Your task to perform on an android device: turn off location history Image 0: 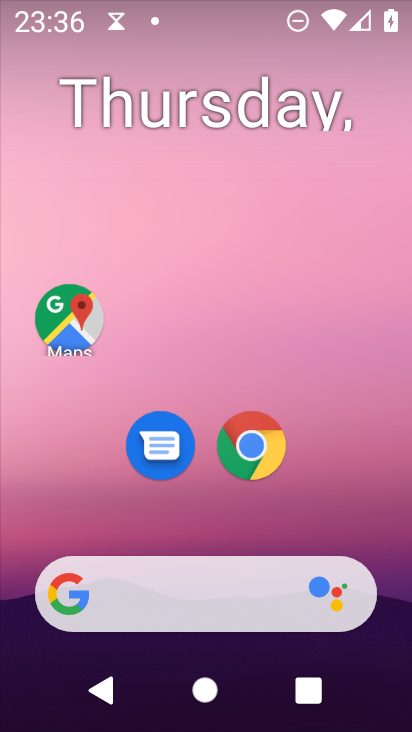
Step 0: drag from (236, 708) to (240, 25)
Your task to perform on an android device: turn off location history Image 1: 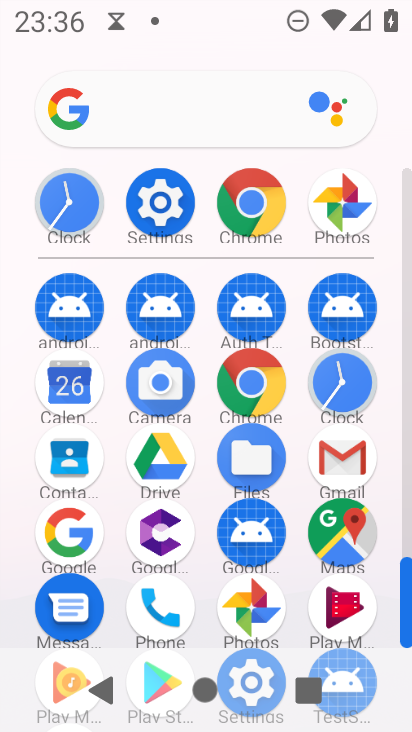
Step 1: click (157, 204)
Your task to perform on an android device: turn off location history Image 2: 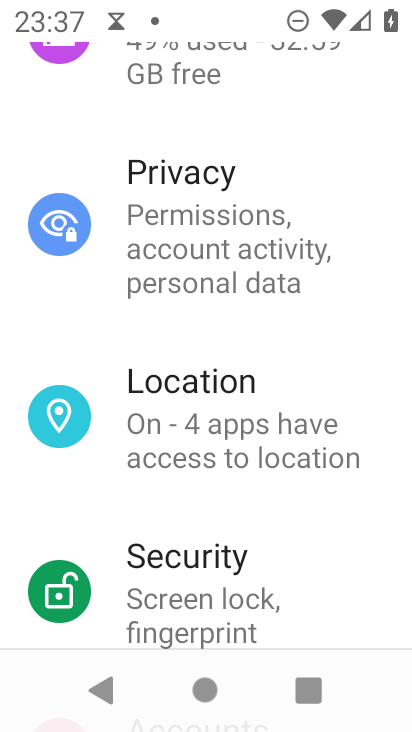
Step 2: drag from (274, 607) to (314, 251)
Your task to perform on an android device: turn off location history Image 3: 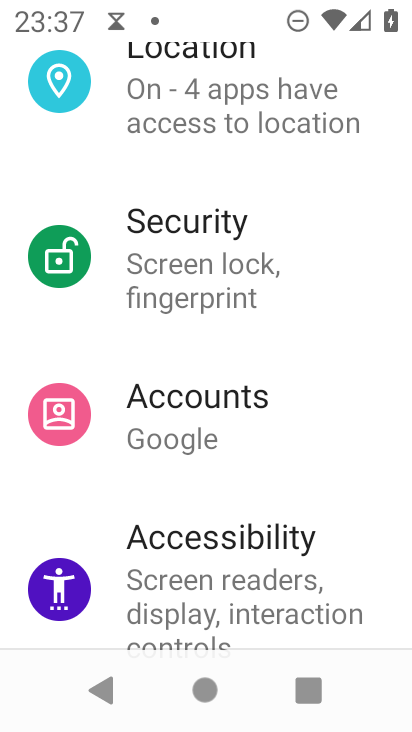
Step 3: drag from (282, 636) to (292, 102)
Your task to perform on an android device: turn off location history Image 4: 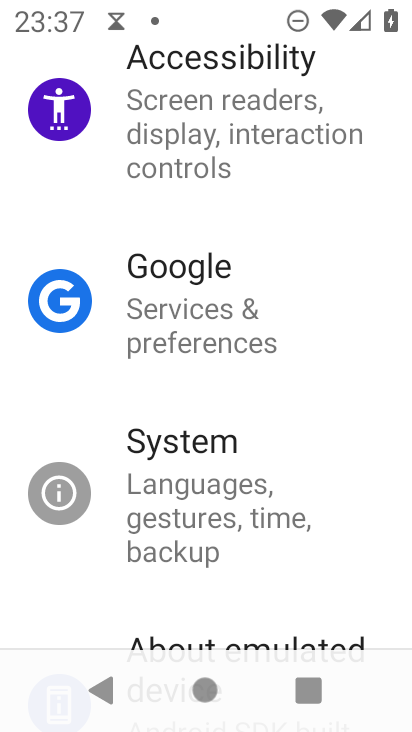
Step 4: drag from (332, 94) to (307, 519)
Your task to perform on an android device: turn off location history Image 5: 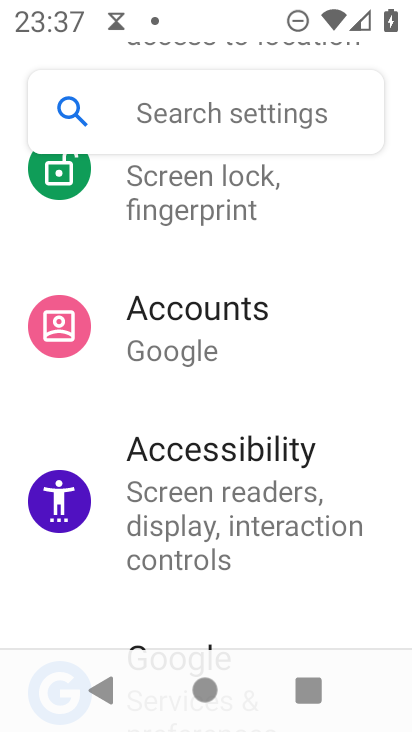
Step 5: drag from (349, 176) to (341, 547)
Your task to perform on an android device: turn off location history Image 6: 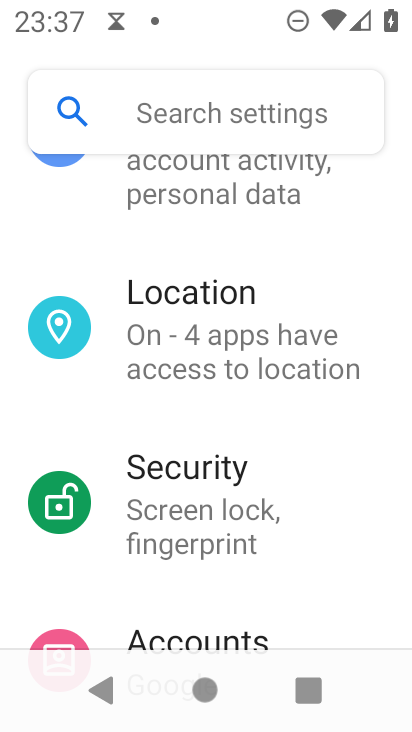
Step 6: click (174, 341)
Your task to perform on an android device: turn off location history Image 7: 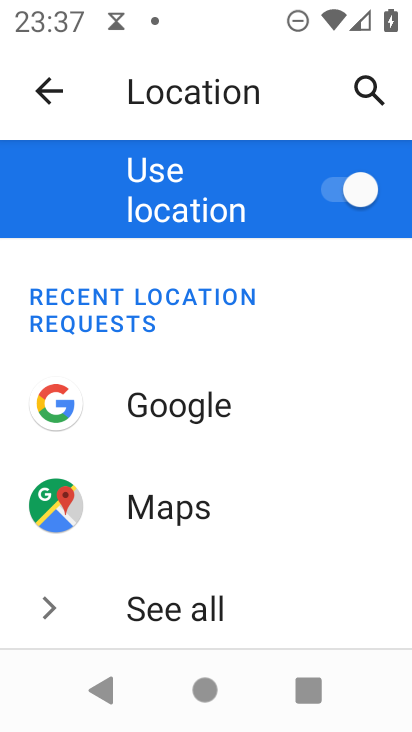
Step 7: drag from (287, 629) to (287, 164)
Your task to perform on an android device: turn off location history Image 8: 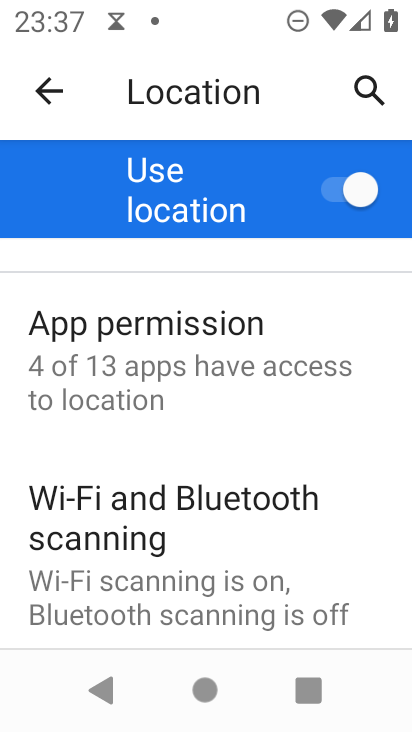
Step 8: drag from (283, 620) to (294, 230)
Your task to perform on an android device: turn off location history Image 9: 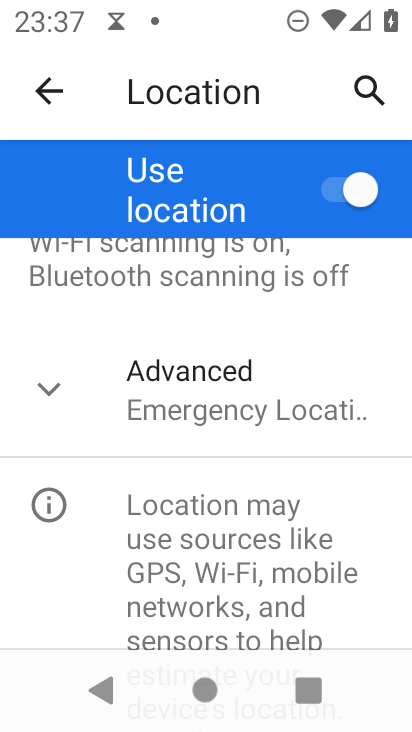
Step 9: click (187, 405)
Your task to perform on an android device: turn off location history Image 10: 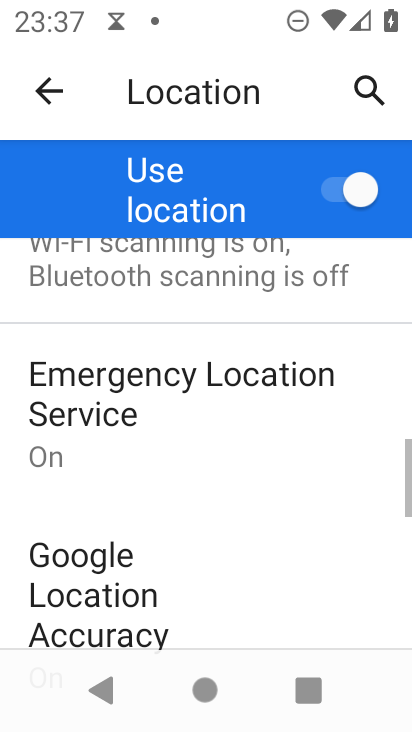
Step 10: drag from (265, 628) to (273, 270)
Your task to perform on an android device: turn off location history Image 11: 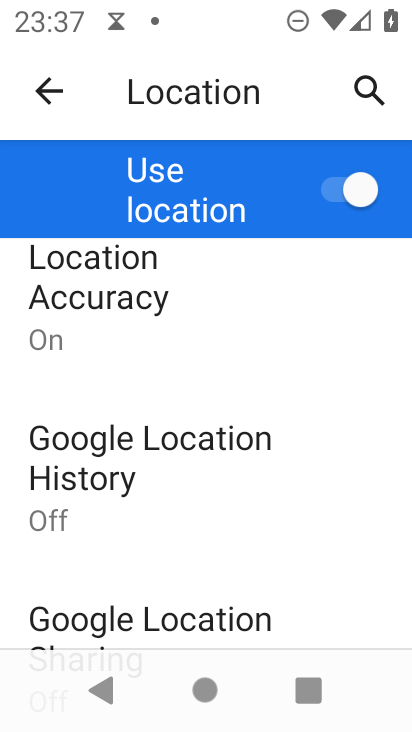
Step 11: click (101, 445)
Your task to perform on an android device: turn off location history Image 12: 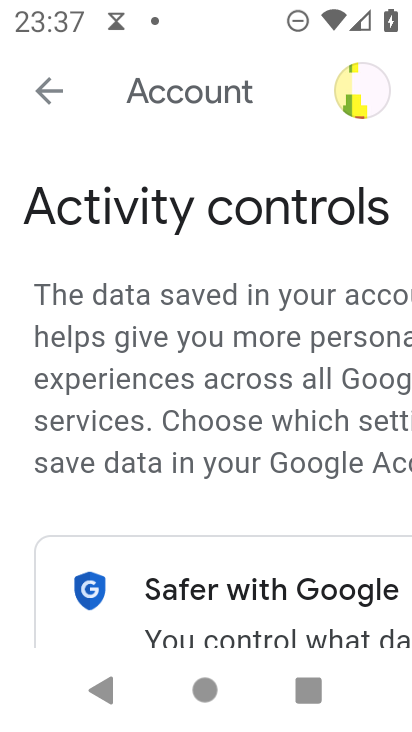
Step 12: task complete